Your task to perform on an android device: What's the news in Chile? Image 0: 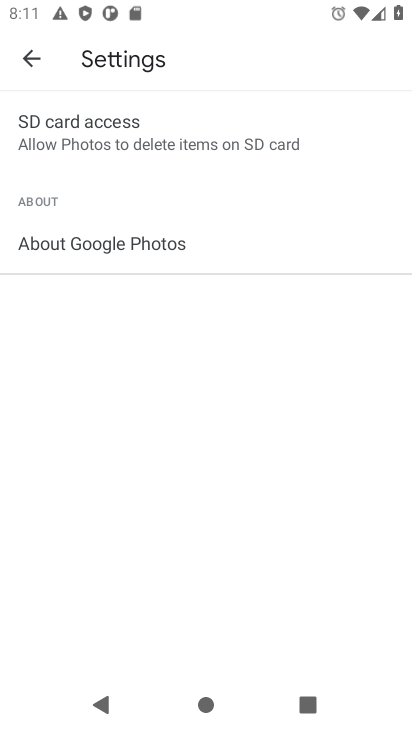
Step 0: click (128, 554)
Your task to perform on an android device: What's the news in Chile? Image 1: 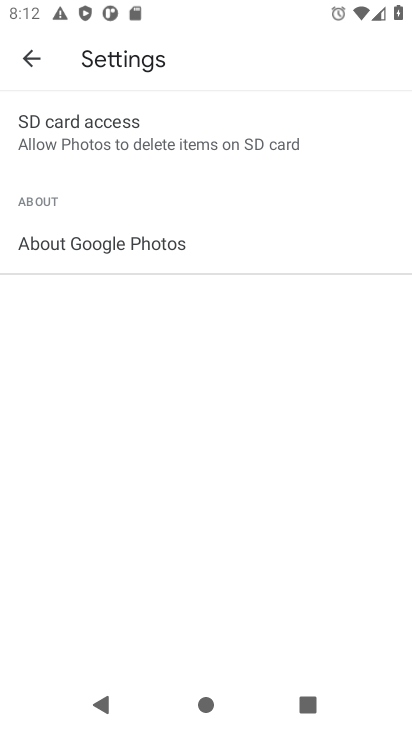
Step 1: press home button
Your task to perform on an android device: What's the news in Chile? Image 2: 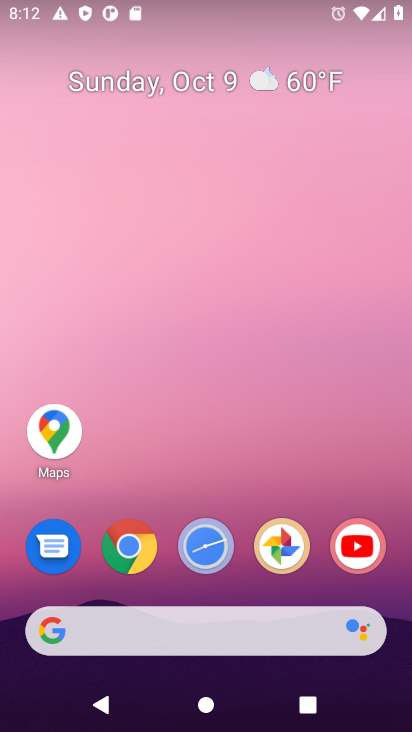
Step 2: click (133, 559)
Your task to perform on an android device: What's the news in Chile? Image 3: 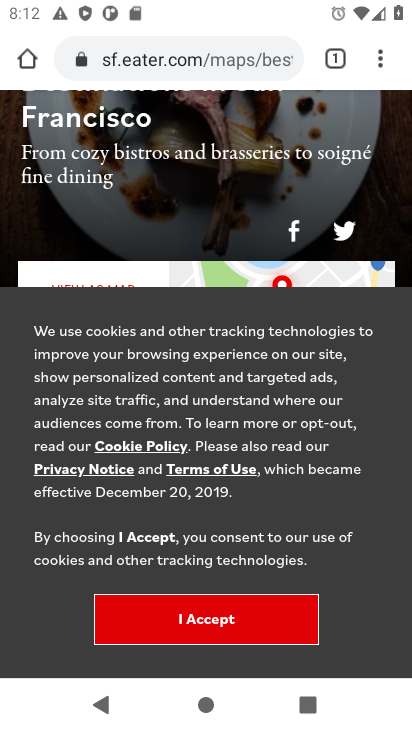
Step 3: click (227, 59)
Your task to perform on an android device: What's the news in Chile? Image 4: 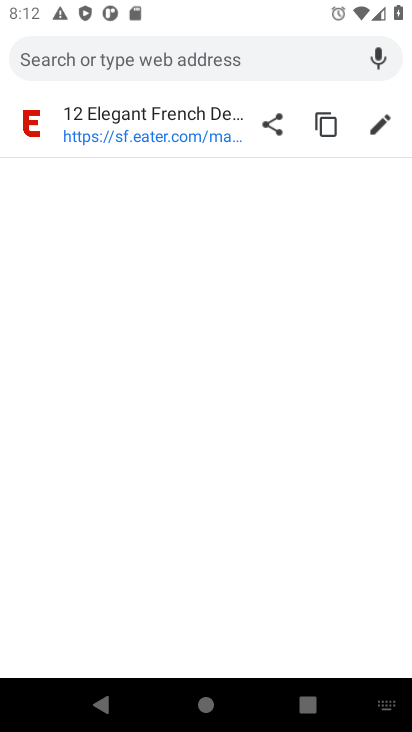
Step 4: type "news in chile"
Your task to perform on an android device: What's the news in Chile? Image 5: 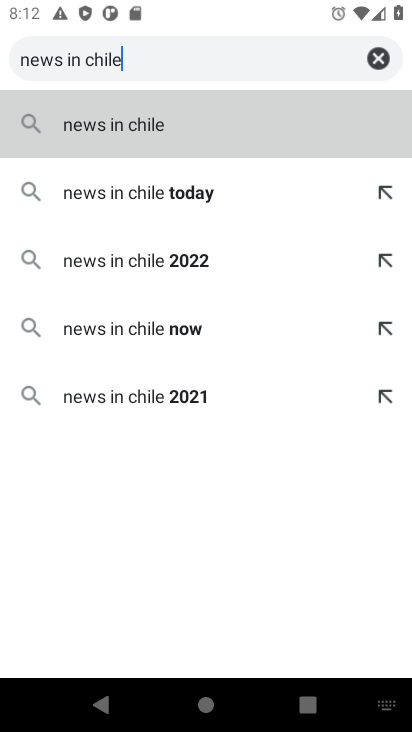
Step 5: press enter
Your task to perform on an android device: What's the news in Chile? Image 6: 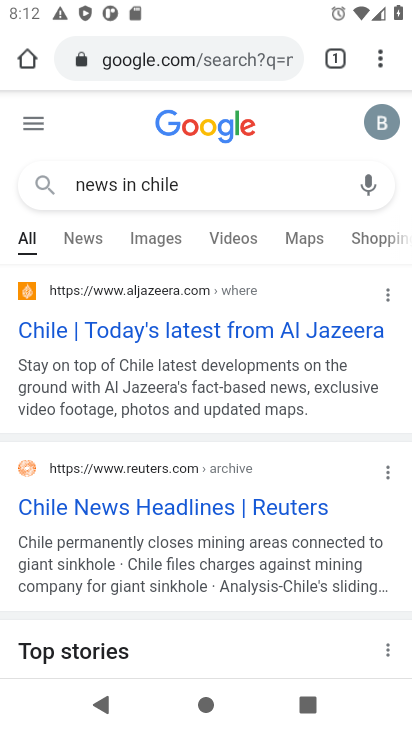
Step 6: click (172, 331)
Your task to perform on an android device: What's the news in Chile? Image 7: 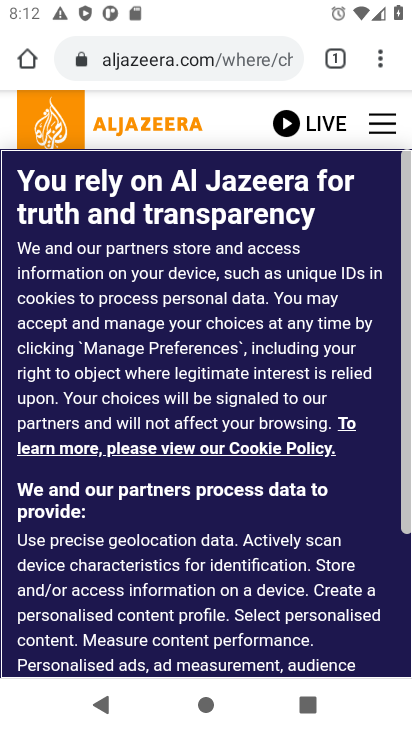
Step 7: drag from (335, 621) to (319, 435)
Your task to perform on an android device: What's the news in Chile? Image 8: 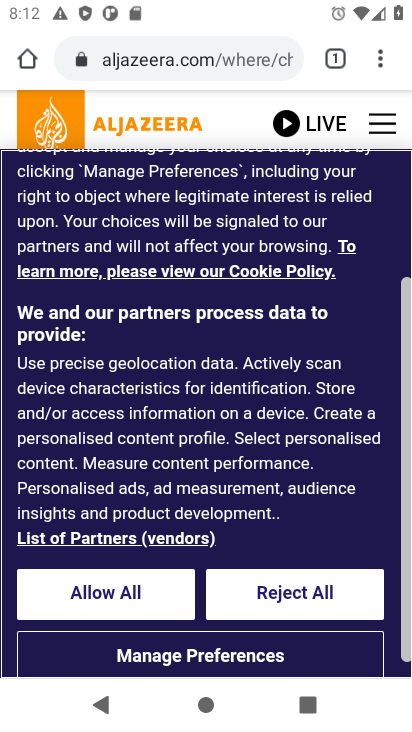
Step 8: click (145, 584)
Your task to perform on an android device: What's the news in Chile? Image 9: 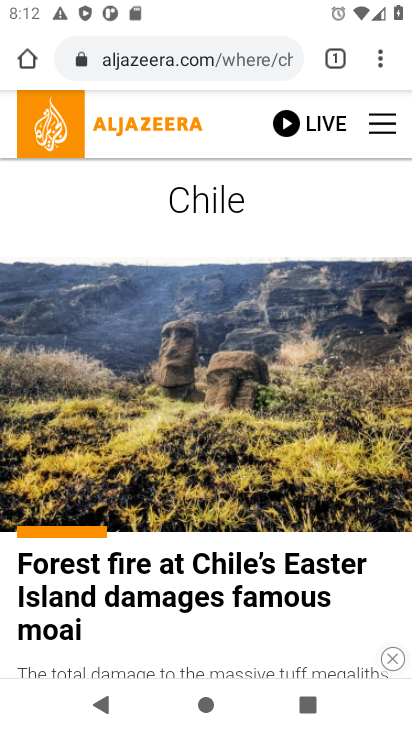
Step 9: drag from (201, 646) to (194, 314)
Your task to perform on an android device: What's the news in Chile? Image 10: 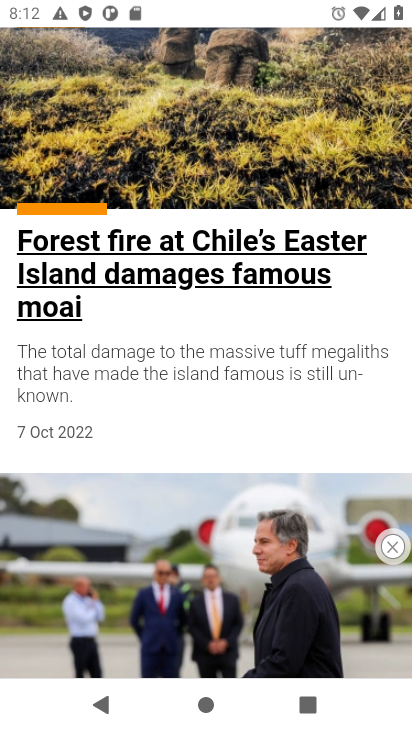
Step 10: drag from (264, 527) to (238, 217)
Your task to perform on an android device: What's the news in Chile? Image 11: 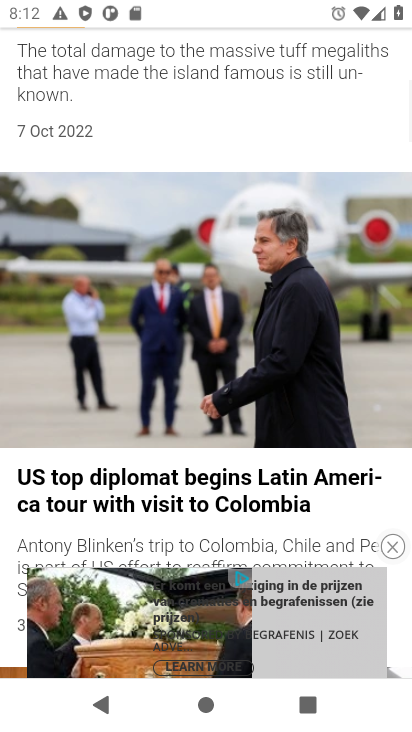
Step 11: drag from (280, 513) to (267, 276)
Your task to perform on an android device: What's the news in Chile? Image 12: 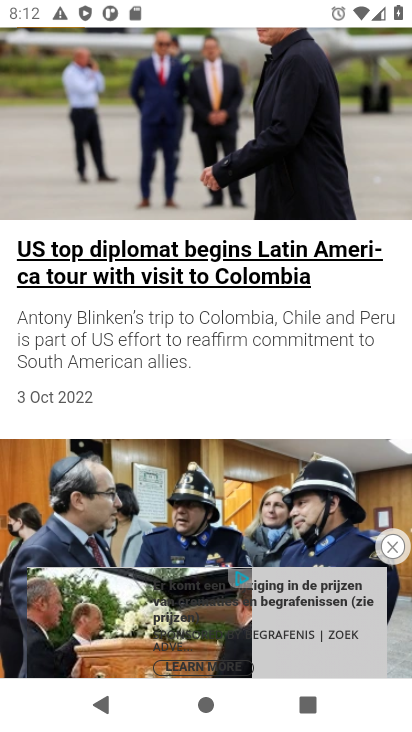
Step 12: click (395, 550)
Your task to perform on an android device: What's the news in Chile? Image 13: 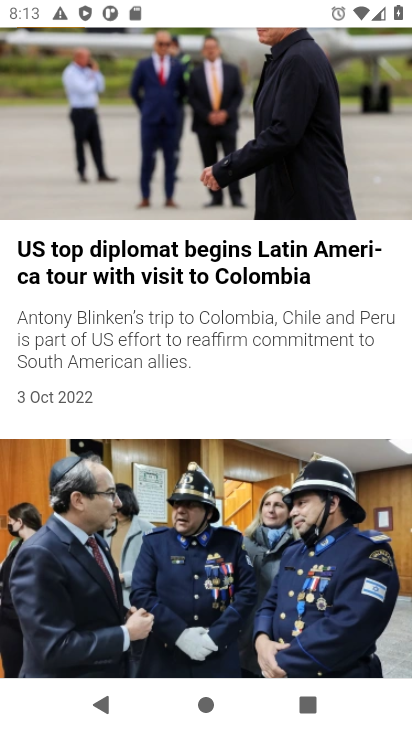
Step 13: drag from (261, 478) to (261, 349)
Your task to perform on an android device: What's the news in Chile? Image 14: 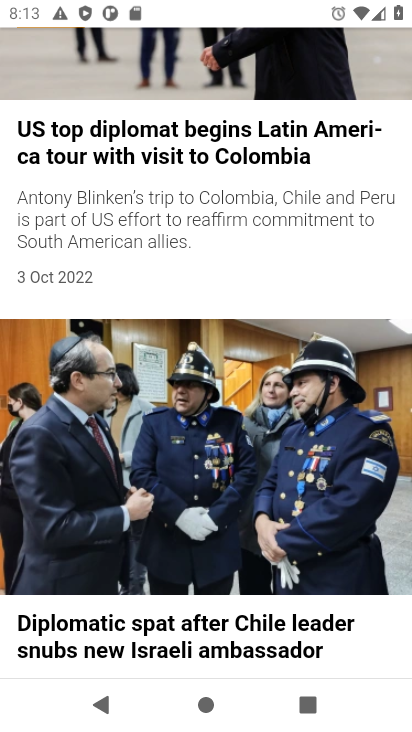
Step 14: press back button
Your task to perform on an android device: What's the news in Chile? Image 15: 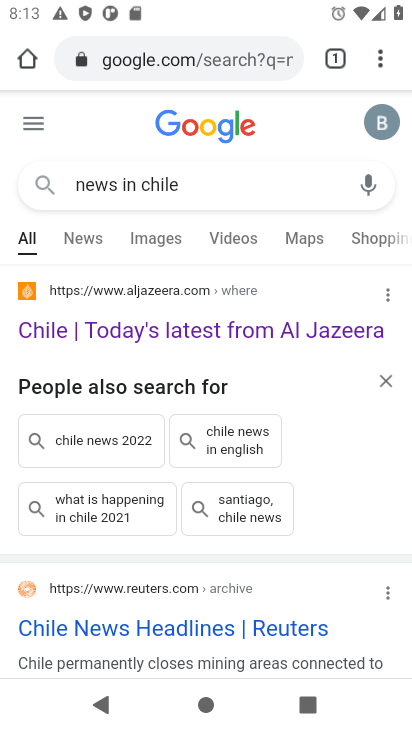
Step 15: click (238, 635)
Your task to perform on an android device: What's the news in Chile? Image 16: 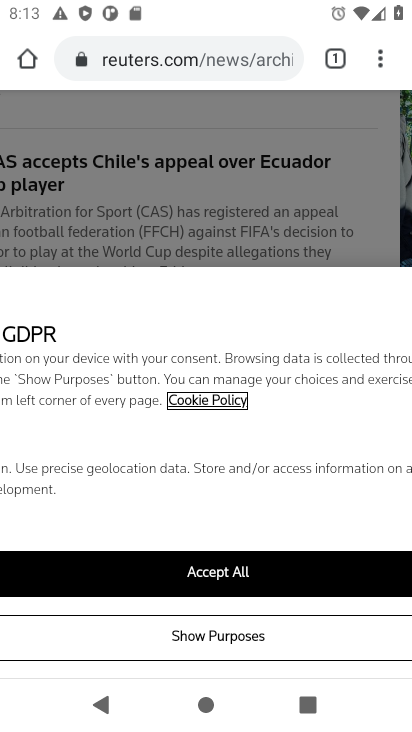
Step 16: click (281, 578)
Your task to perform on an android device: What's the news in Chile? Image 17: 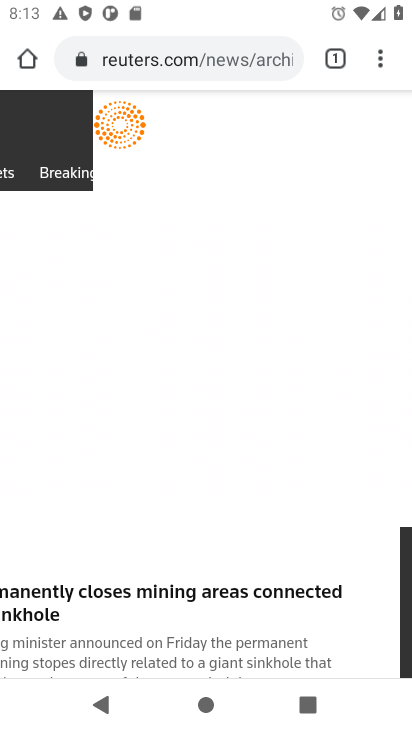
Step 17: drag from (230, 613) to (242, 316)
Your task to perform on an android device: What's the news in Chile? Image 18: 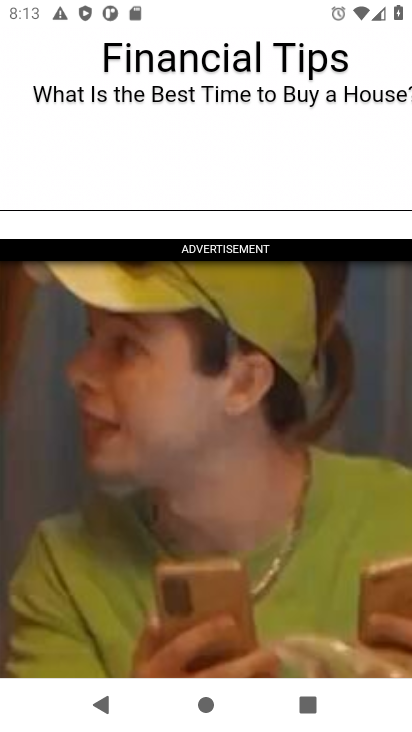
Step 18: drag from (293, 547) to (315, 646)
Your task to perform on an android device: What's the news in Chile? Image 19: 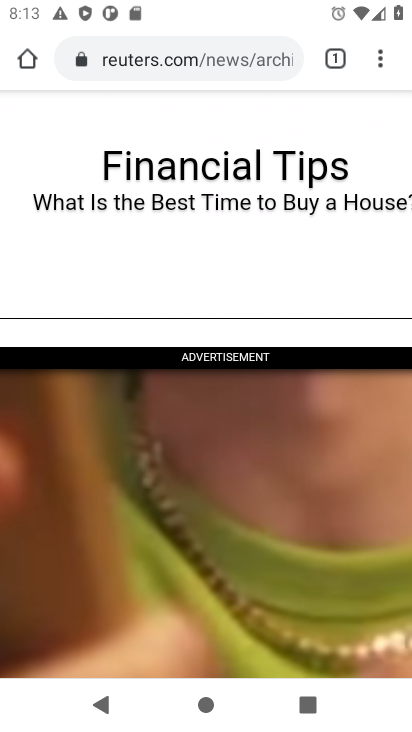
Step 19: press back button
Your task to perform on an android device: What's the news in Chile? Image 20: 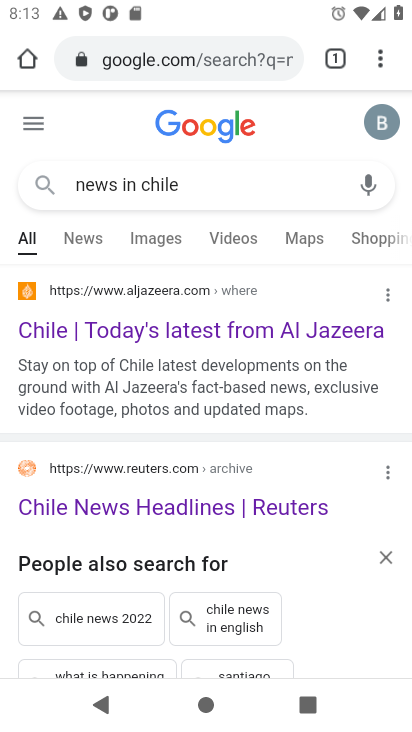
Step 20: click (91, 243)
Your task to perform on an android device: What's the news in Chile? Image 21: 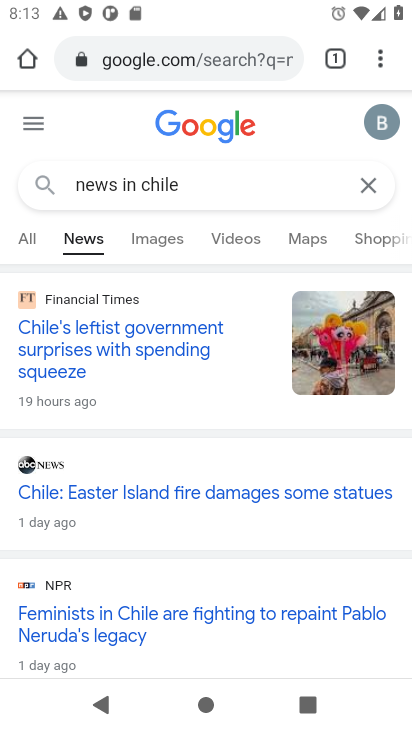
Step 21: task complete